Your task to perform on an android device: Open settings on Google Maps Image 0: 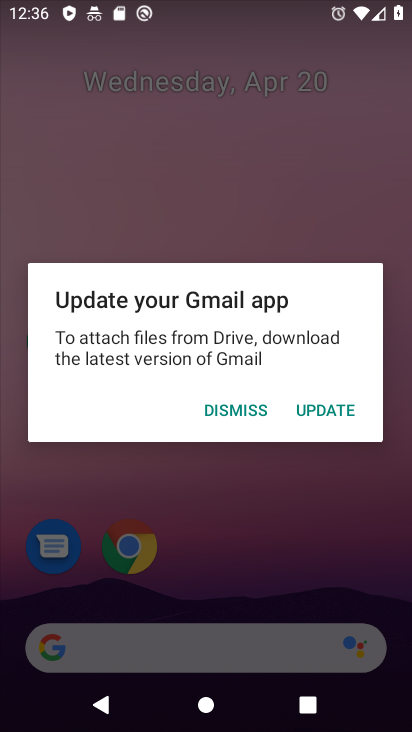
Step 0: press home button
Your task to perform on an android device: Open settings on Google Maps Image 1: 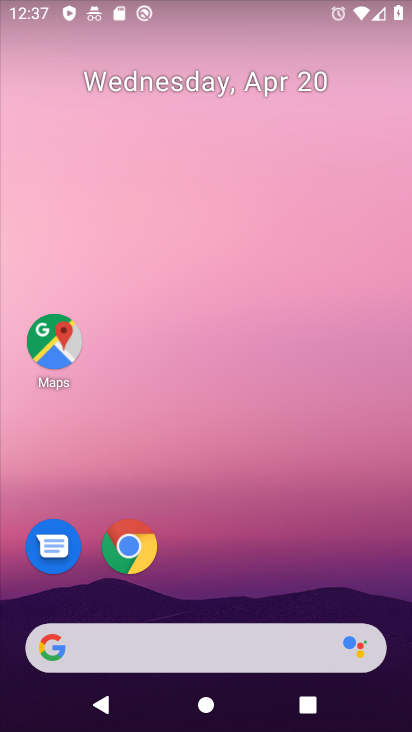
Step 1: drag from (254, 703) to (312, 32)
Your task to perform on an android device: Open settings on Google Maps Image 2: 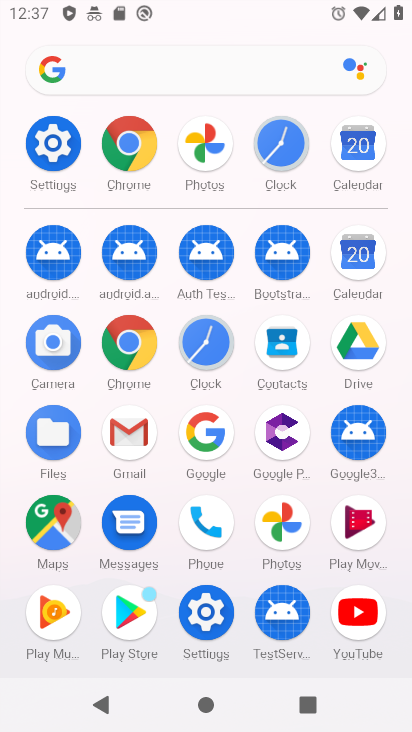
Step 2: click (51, 530)
Your task to perform on an android device: Open settings on Google Maps Image 3: 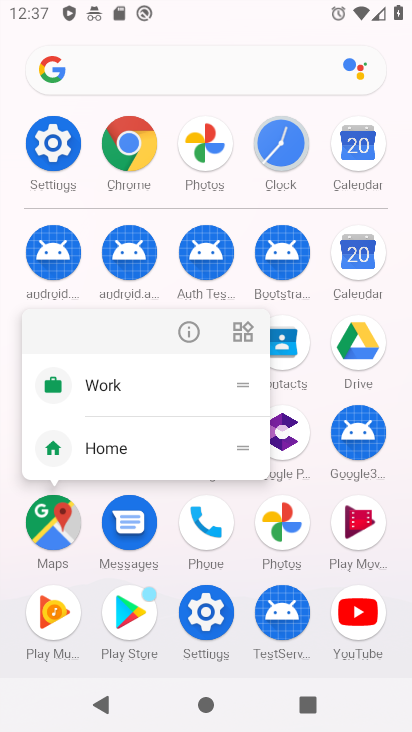
Step 3: click (195, 326)
Your task to perform on an android device: Open settings on Google Maps Image 4: 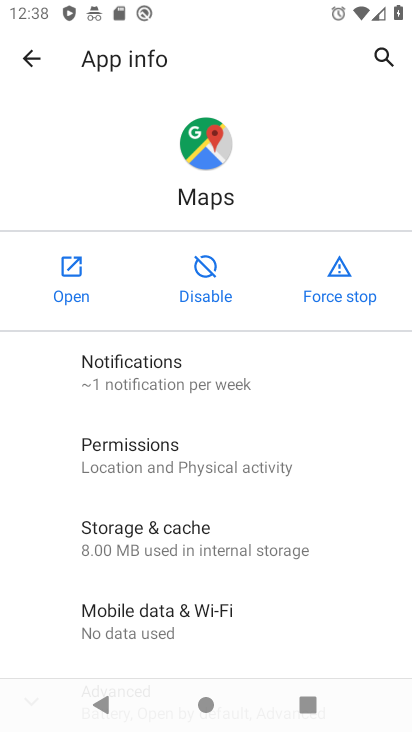
Step 4: task complete